Your task to perform on an android device: install app "Microsoft Authenticator" Image 0: 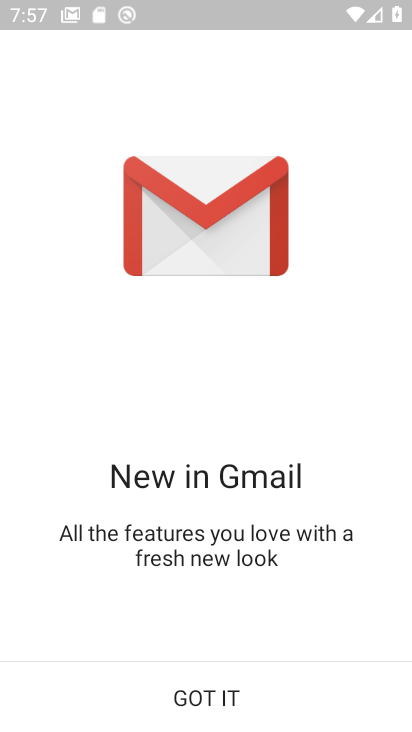
Step 0: press home button
Your task to perform on an android device: install app "Microsoft Authenticator" Image 1: 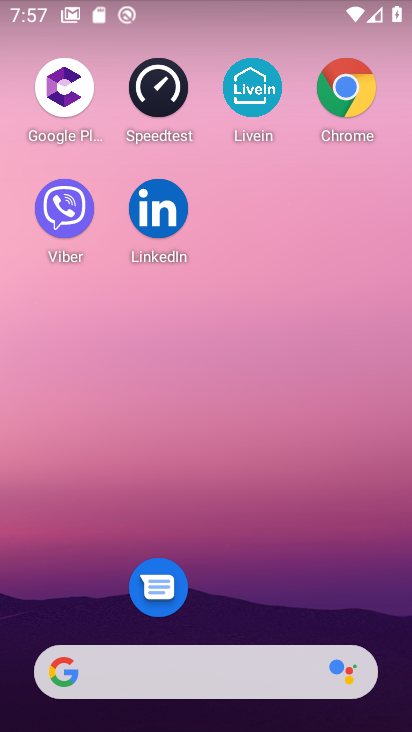
Step 1: drag from (290, 611) to (278, 78)
Your task to perform on an android device: install app "Microsoft Authenticator" Image 2: 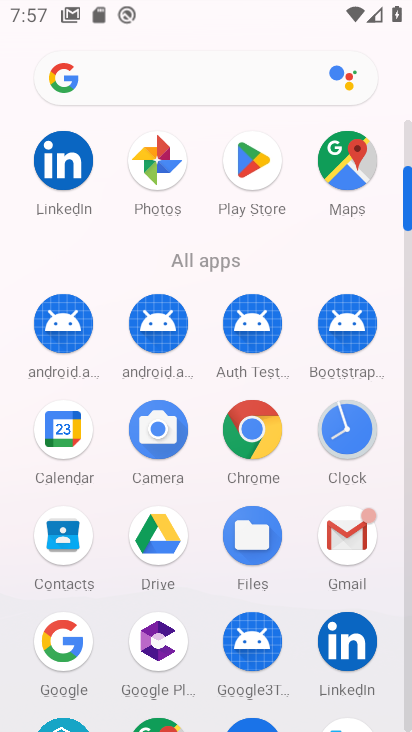
Step 2: drag from (409, 210) to (410, 297)
Your task to perform on an android device: install app "Microsoft Authenticator" Image 3: 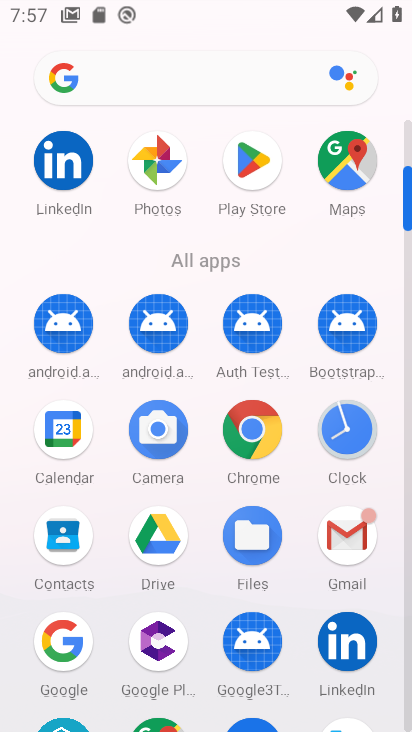
Step 3: click (404, 324)
Your task to perform on an android device: install app "Microsoft Authenticator" Image 4: 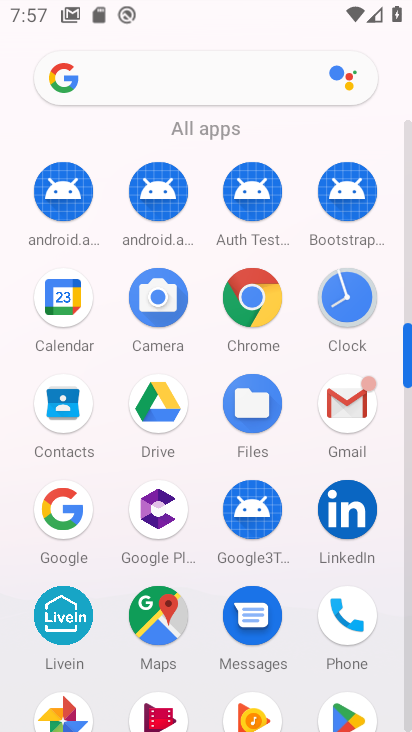
Step 4: click (408, 521)
Your task to perform on an android device: install app "Microsoft Authenticator" Image 5: 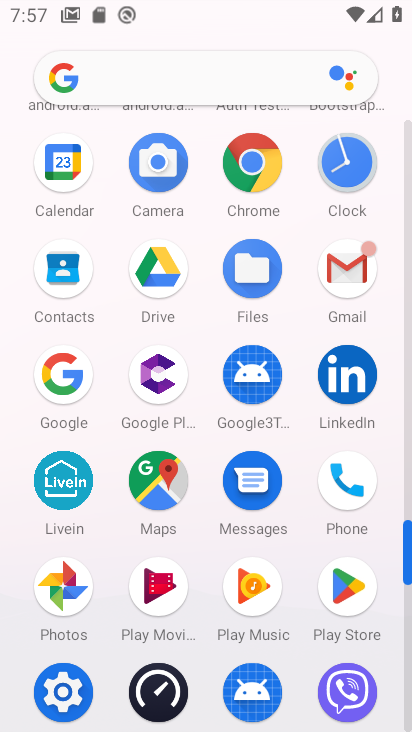
Step 5: click (63, 700)
Your task to perform on an android device: install app "Microsoft Authenticator" Image 6: 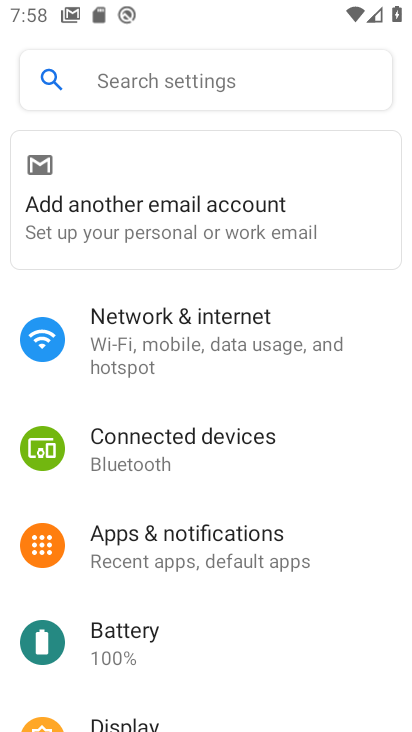
Step 6: drag from (172, 562) to (181, 437)
Your task to perform on an android device: install app "Microsoft Authenticator" Image 7: 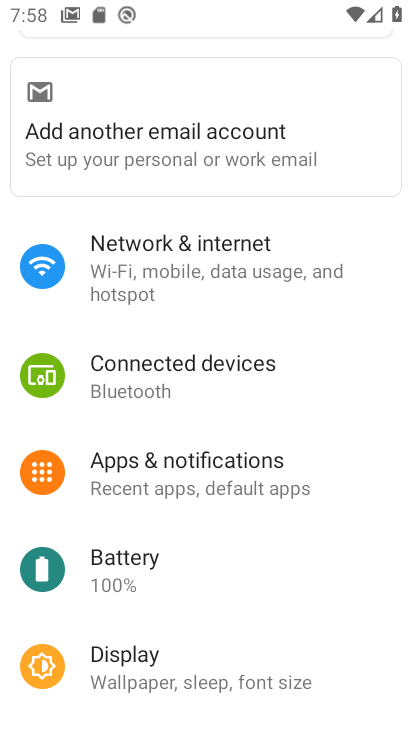
Step 7: drag from (268, 595) to (293, 250)
Your task to perform on an android device: install app "Microsoft Authenticator" Image 8: 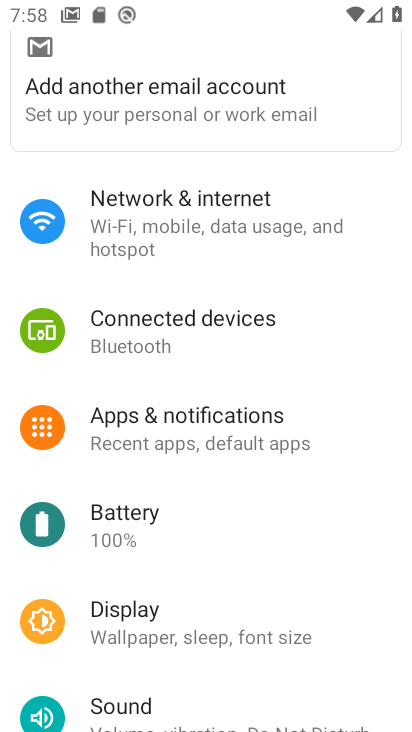
Step 8: press home button
Your task to perform on an android device: install app "Microsoft Authenticator" Image 9: 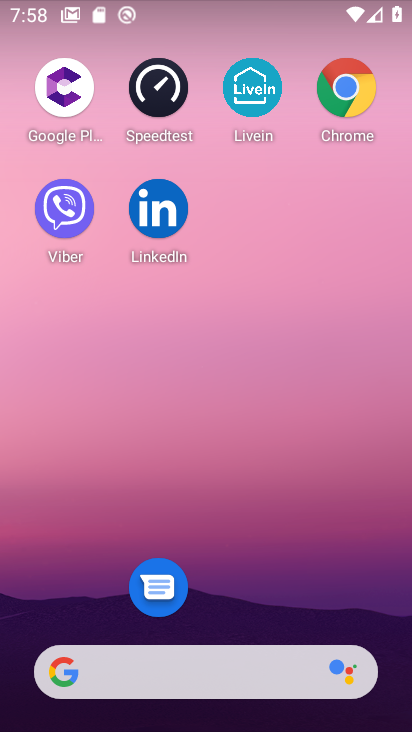
Step 9: drag from (252, 594) to (274, 61)
Your task to perform on an android device: install app "Microsoft Authenticator" Image 10: 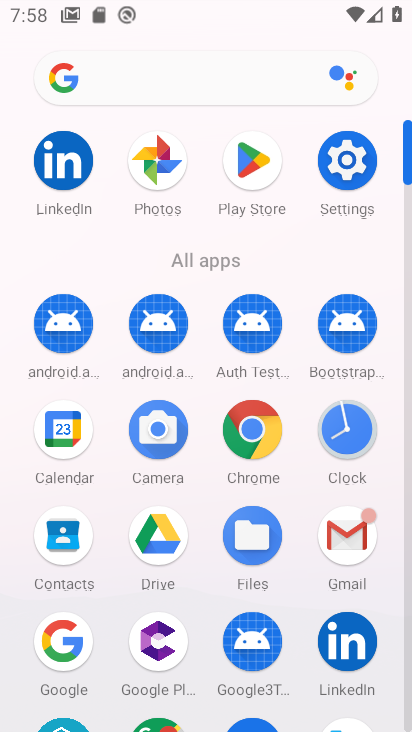
Step 10: click (266, 200)
Your task to perform on an android device: install app "Microsoft Authenticator" Image 11: 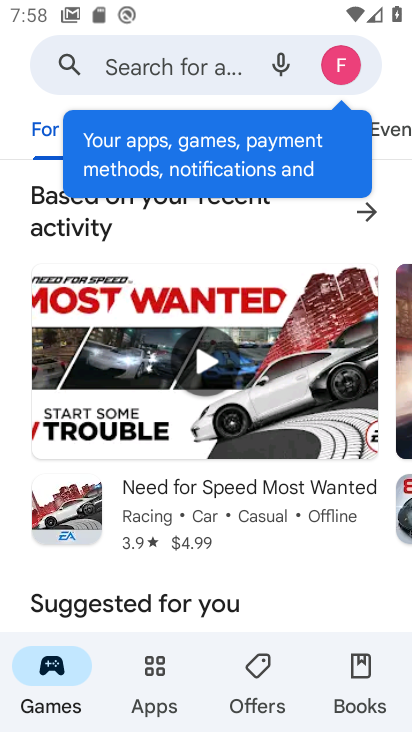
Step 11: click (225, 67)
Your task to perform on an android device: install app "Microsoft Authenticator" Image 12: 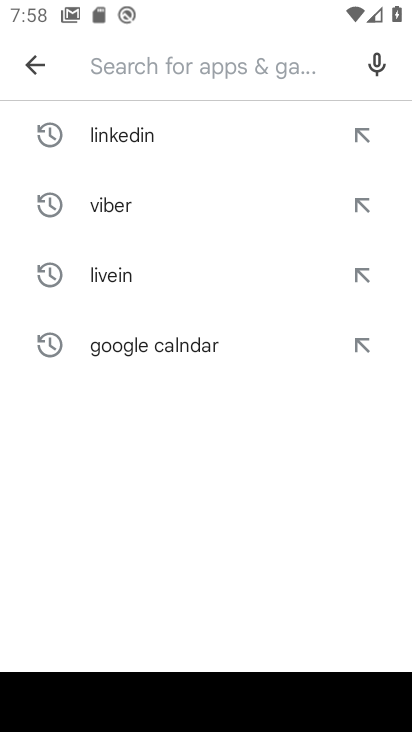
Step 12: type "microsoft authenticator"
Your task to perform on an android device: install app "Microsoft Authenticator" Image 13: 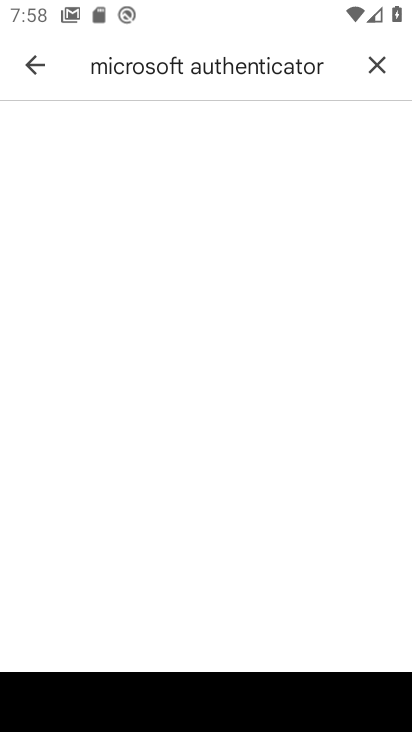
Step 13: task complete